Your task to perform on an android device: Go to ESPN.com Image 0: 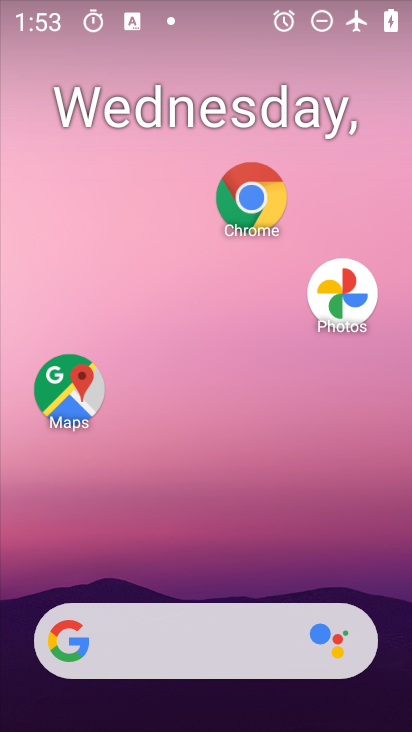
Step 0: drag from (260, 663) to (327, 157)
Your task to perform on an android device: Go to ESPN.com Image 1: 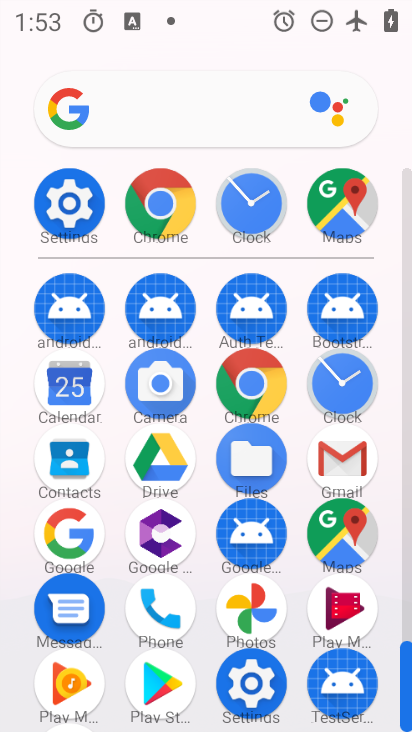
Step 1: click (167, 212)
Your task to perform on an android device: Go to ESPN.com Image 2: 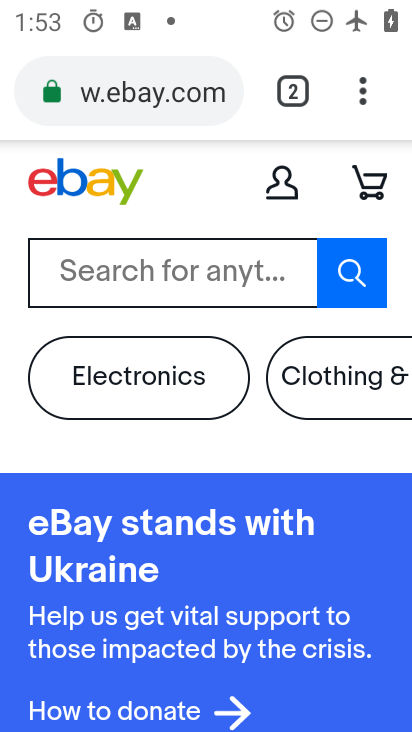
Step 2: click (171, 113)
Your task to perform on an android device: Go to ESPN.com Image 3: 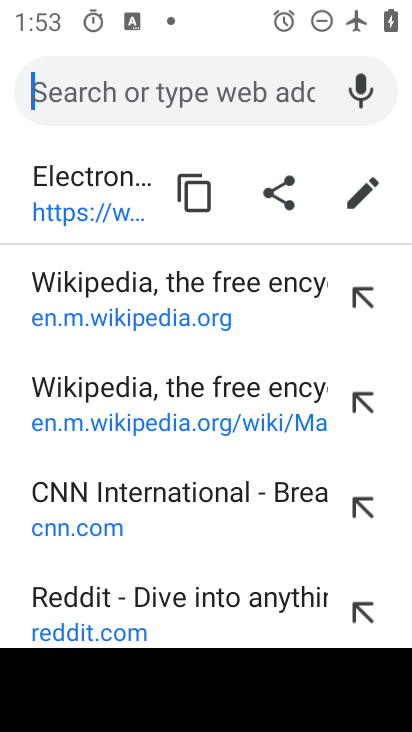
Step 3: drag from (185, 521) to (242, 234)
Your task to perform on an android device: Go to ESPN.com Image 4: 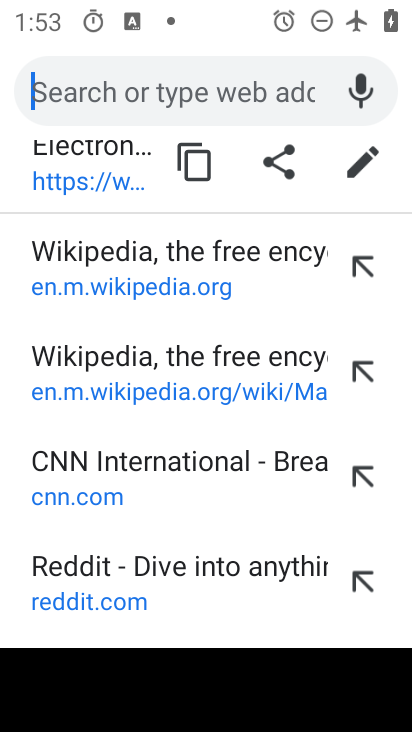
Step 4: type "espn"
Your task to perform on an android device: Go to ESPN.com Image 5: 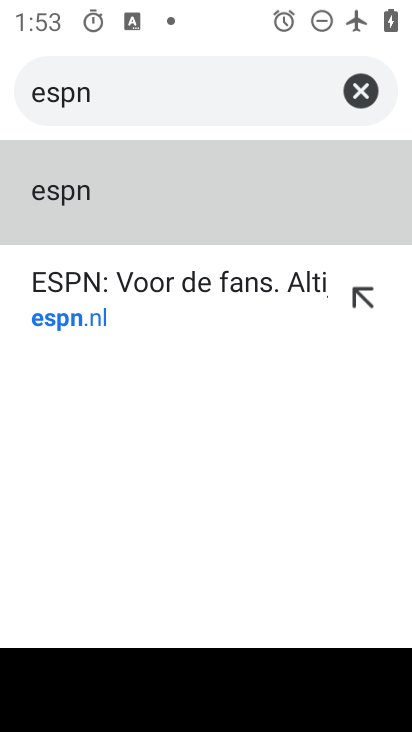
Step 5: click (204, 307)
Your task to perform on an android device: Go to ESPN.com Image 6: 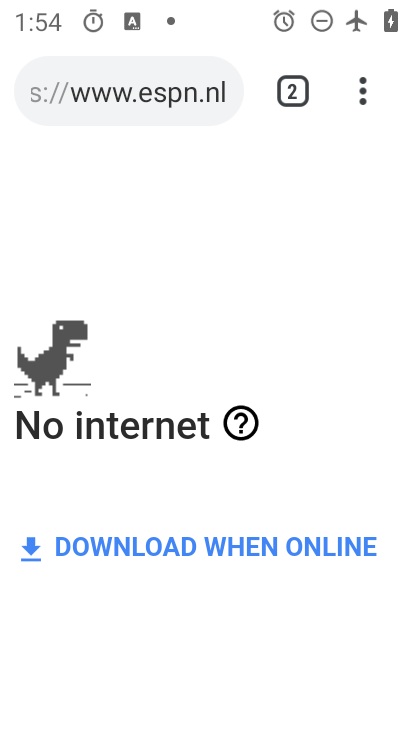
Step 6: task complete